Your task to perform on an android device: Go to calendar. Show me events next week Image 0: 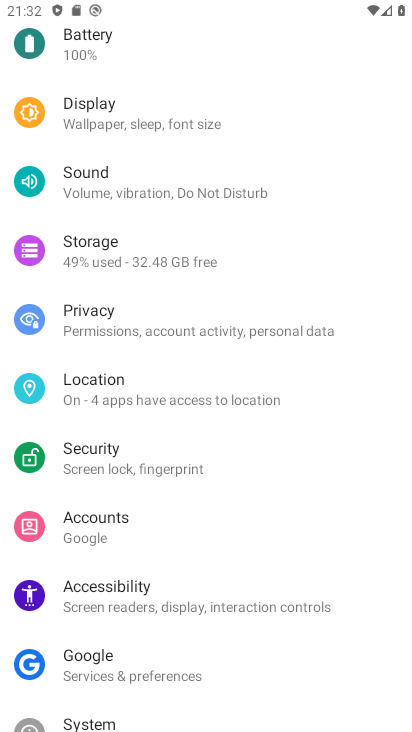
Step 0: press back button
Your task to perform on an android device: Go to calendar. Show me events next week Image 1: 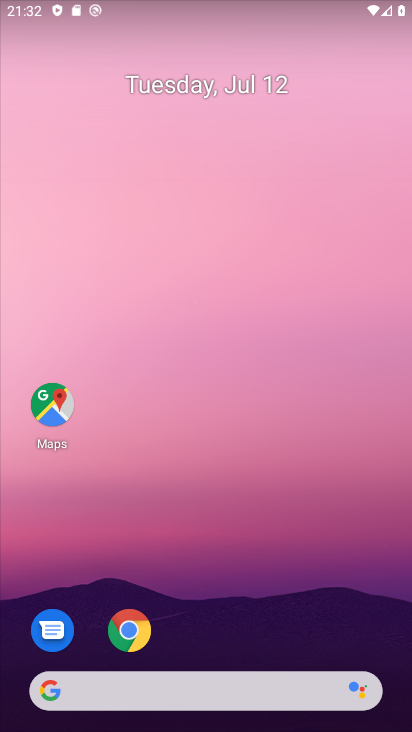
Step 1: drag from (217, 644) to (276, 8)
Your task to perform on an android device: Go to calendar. Show me events next week Image 2: 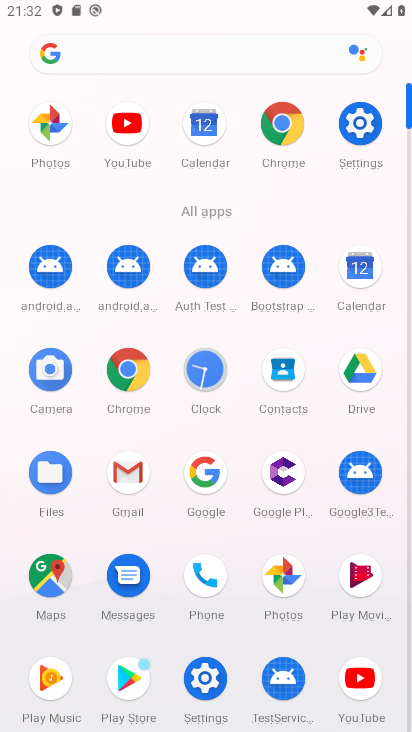
Step 2: click (362, 270)
Your task to perform on an android device: Go to calendar. Show me events next week Image 3: 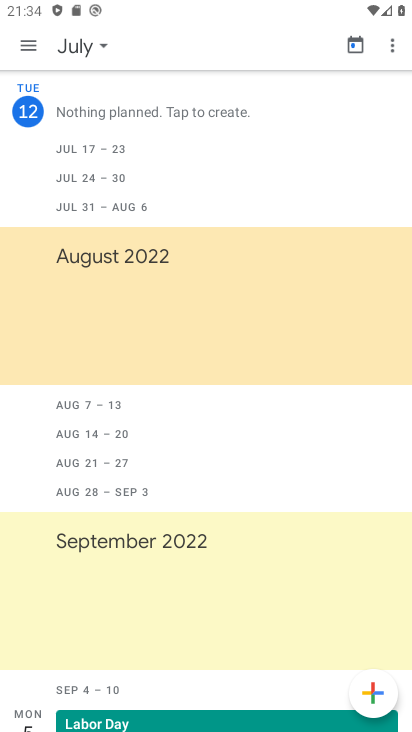
Step 3: click (101, 51)
Your task to perform on an android device: Go to calendar. Show me events next week Image 4: 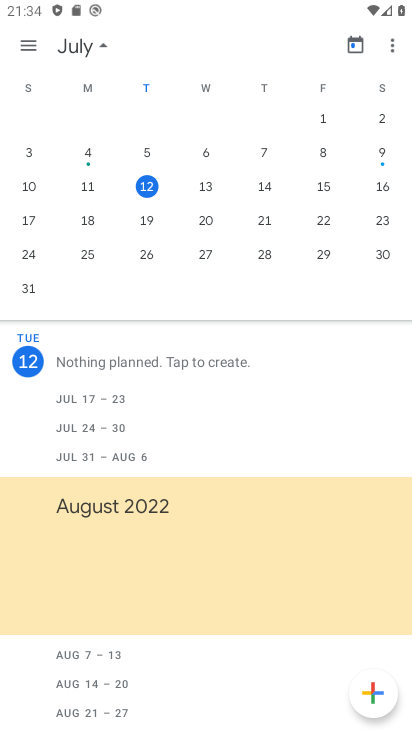
Step 4: click (83, 216)
Your task to perform on an android device: Go to calendar. Show me events next week Image 5: 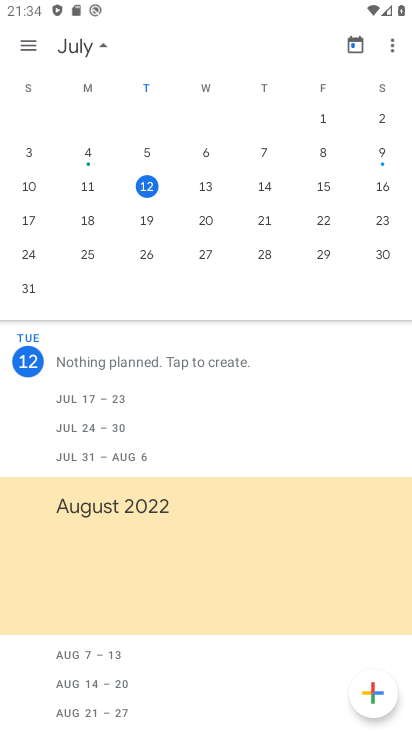
Step 5: click (90, 224)
Your task to perform on an android device: Go to calendar. Show me events next week Image 6: 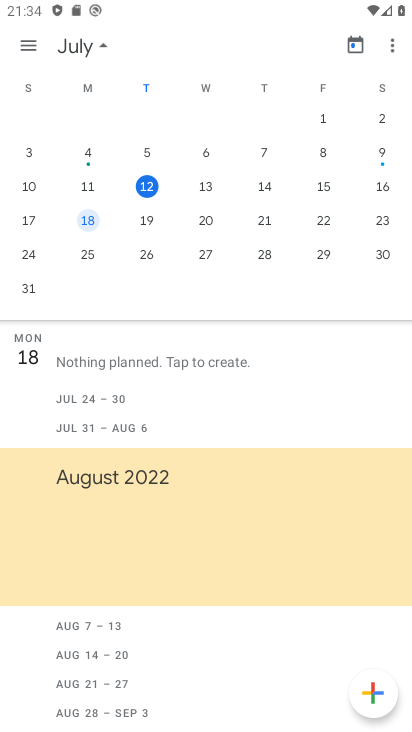
Step 6: task complete